Your task to perform on an android device: Search for Mexican restaurants on Maps Image 0: 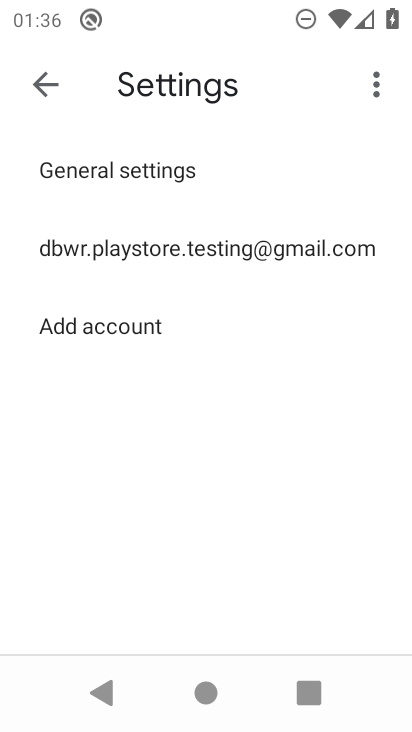
Step 0: click (260, 475)
Your task to perform on an android device: Search for Mexican restaurants on Maps Image 1: 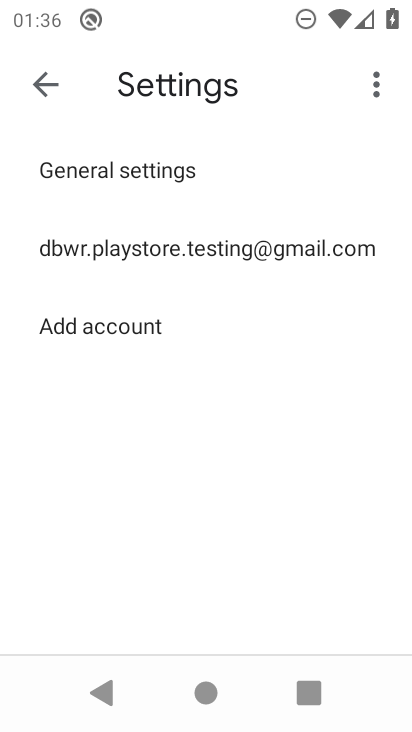
Step 1: press home button
Your task to perform on an android device: Search for Mexican restaurants on Maps Image 2: 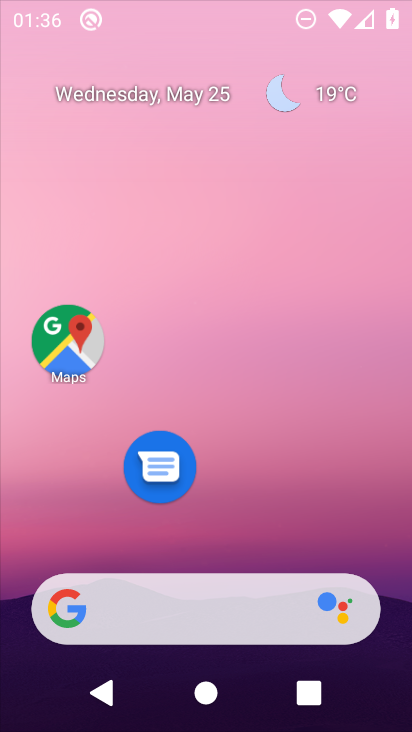
Step 2: drag from (204, 551) to (338, 73)
Your task to perform on an android device: Search for Mexican restaurants on Maps Image 3: 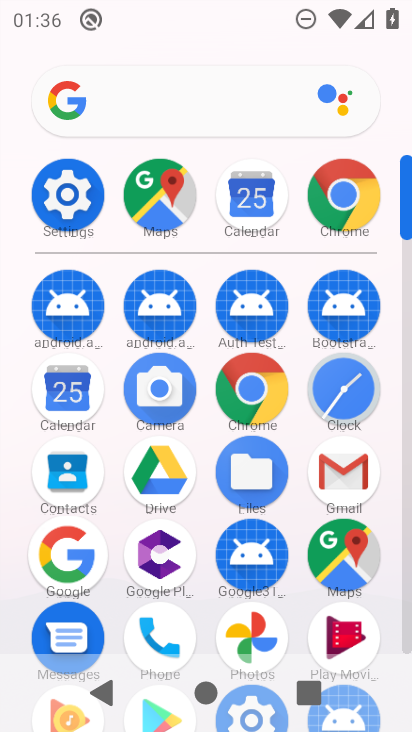
Step 3: click (343, 539)
Your task to perform on an android device: Search for Mexican restaurants on Maps Image 4: 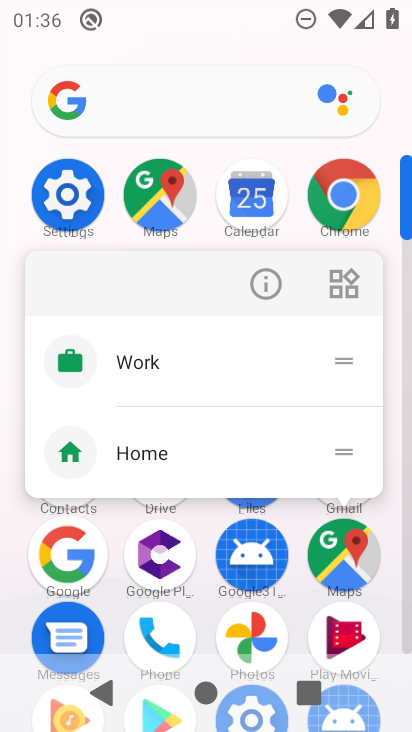
Step 4: click (270, 285)
Your task to perform on an android device: Search for Mexican restaurants on Maps Image 5: 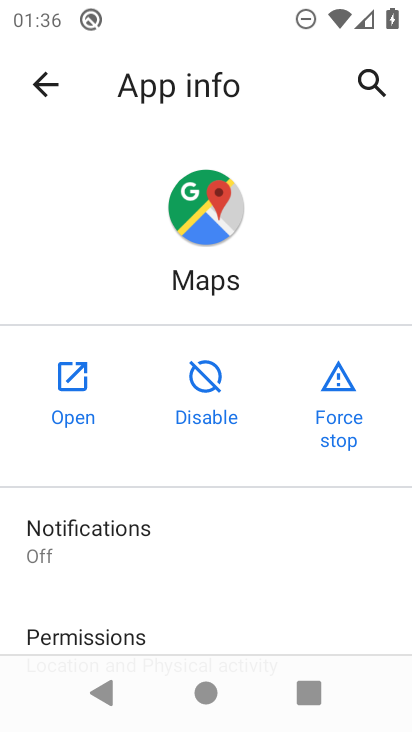
Step 5: click (67, 383)
Your task to perform on an android device: Search for Mexican restaurants on Maps Image 6: 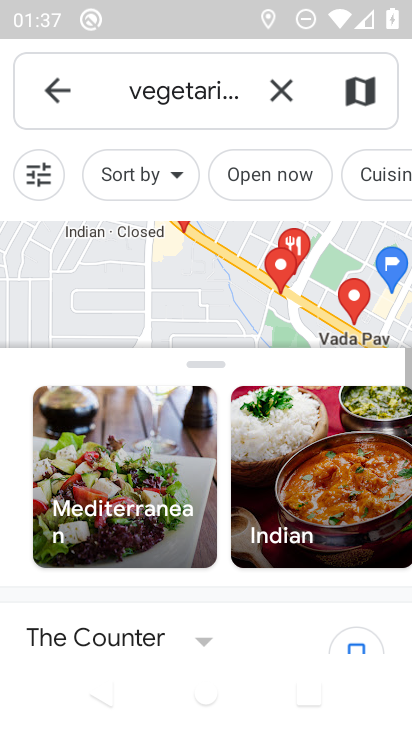
Step 6: click (277, 94)
Your task to perform on an android device: Search for Mexican restaurants on Maps Image 7: 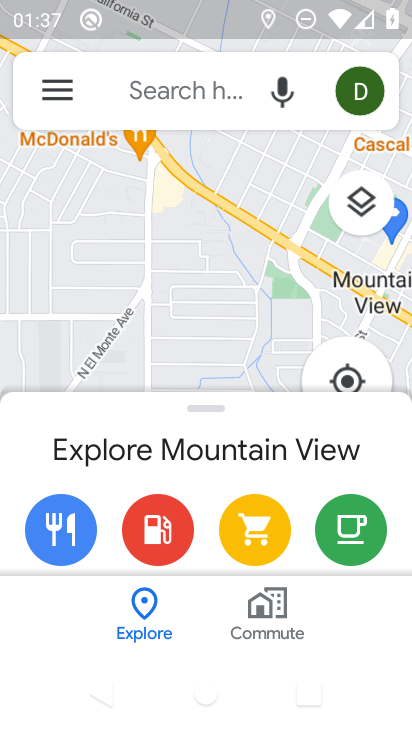
Step 7: click (144, 95)
Your task to perform on an android device: Search for Mexican restaurants on Maps Image 8: 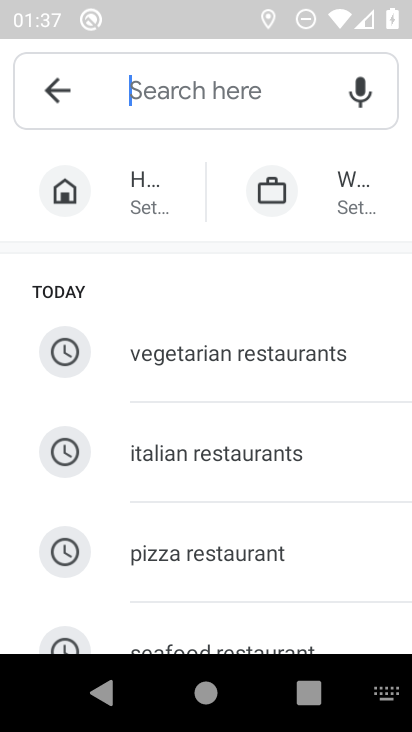
Step 8: drag from (215, 542) to (240, 180)
Your task to perform on an android device: Search for Mexican restaurants on Maps Image 9: 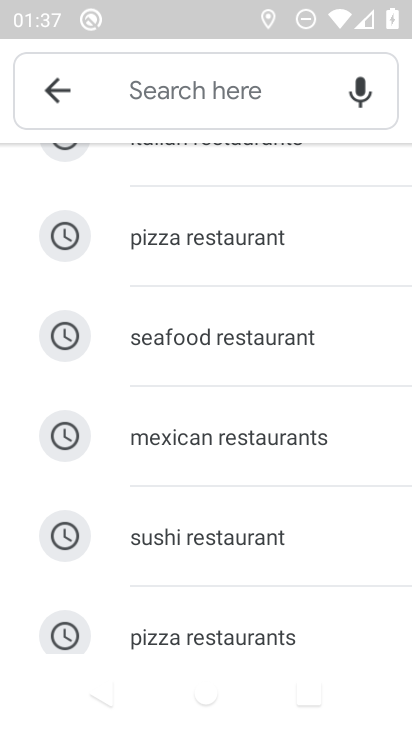
Step 9: click (197, 445)
Your task to perform on an android device: Search for Mexican restaurants on Maps Image 10: 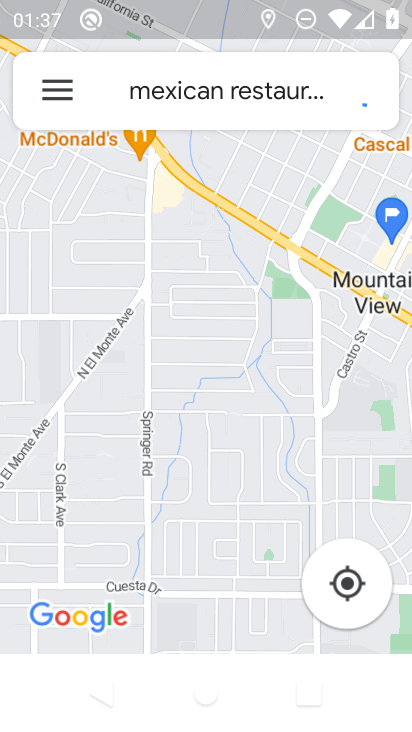
Step 10: task complete